Your task to perform on an android device: Go to CNN.com Image 0: 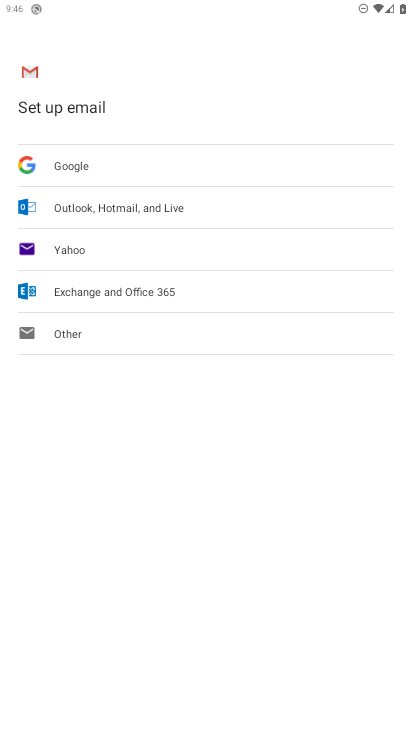
Step 0: press home button
Your task to perform on an android device: Go to CNN.com Image 1: 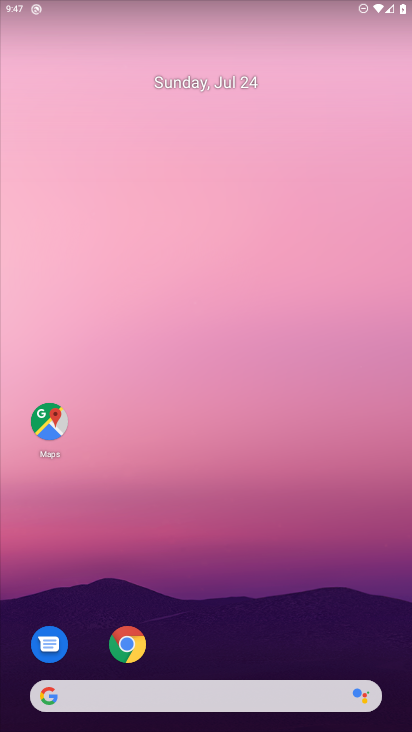
Step 1: click (118, 636)
Your task to perform on an android device: Go to CNN.com Image 2: 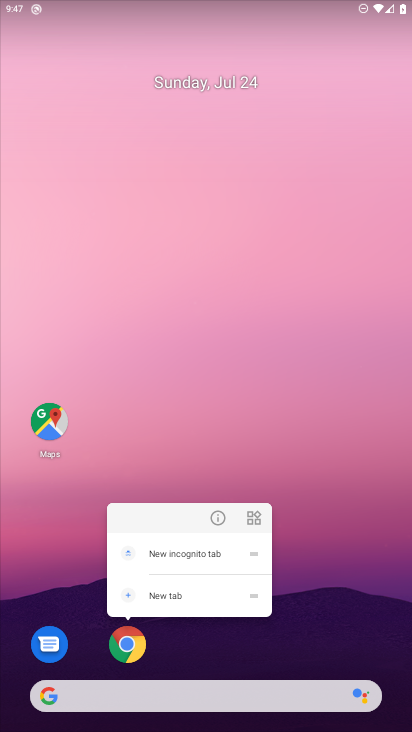
Step 2: click (128, 654)
Your task to perform on an android device: Go to CNN.com Image 3: 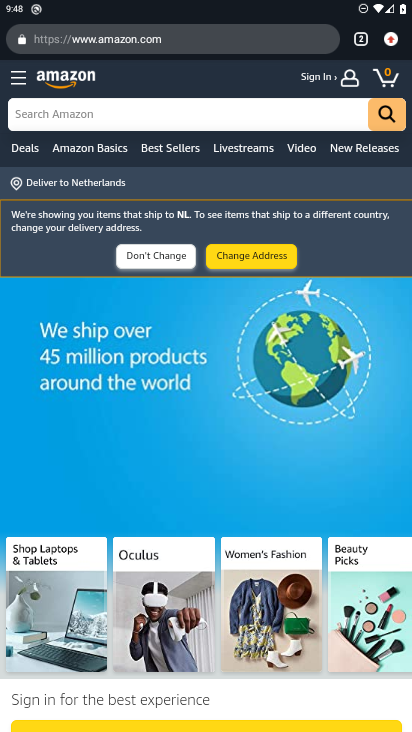
Step 3: click (175, 45)
Your task to perform on an android device: Go to CNN.com Image 4: 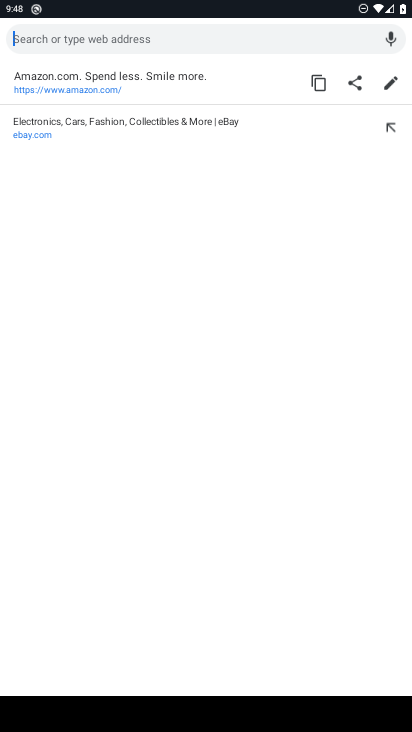
Step 4: type "CNN.com"
Your task to perform on an android device: Go to CNN.com Image 5: 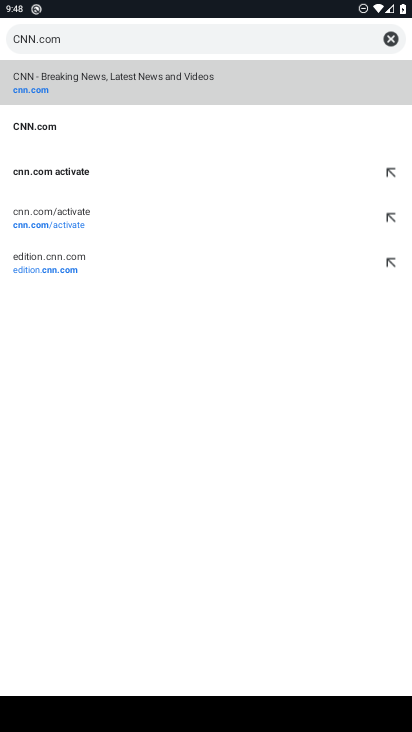
Step 5: click (49, 90)
Your task to perform on an android device: Go to CNN.com Image 6: 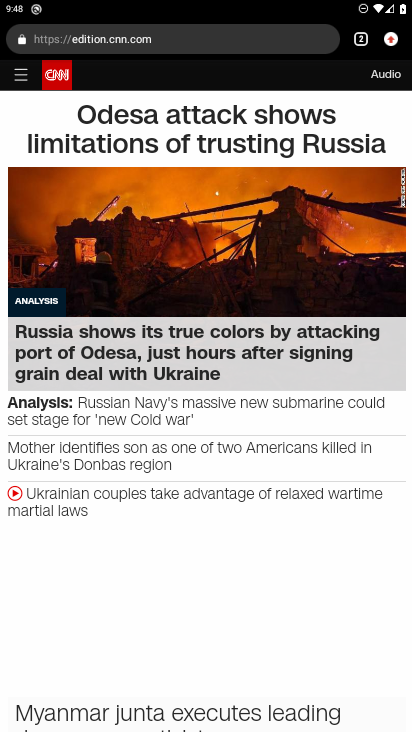
Step 6: task complete